Your task to perform on an android device: Open Youtube and go to the subscriptions tab Image 0: 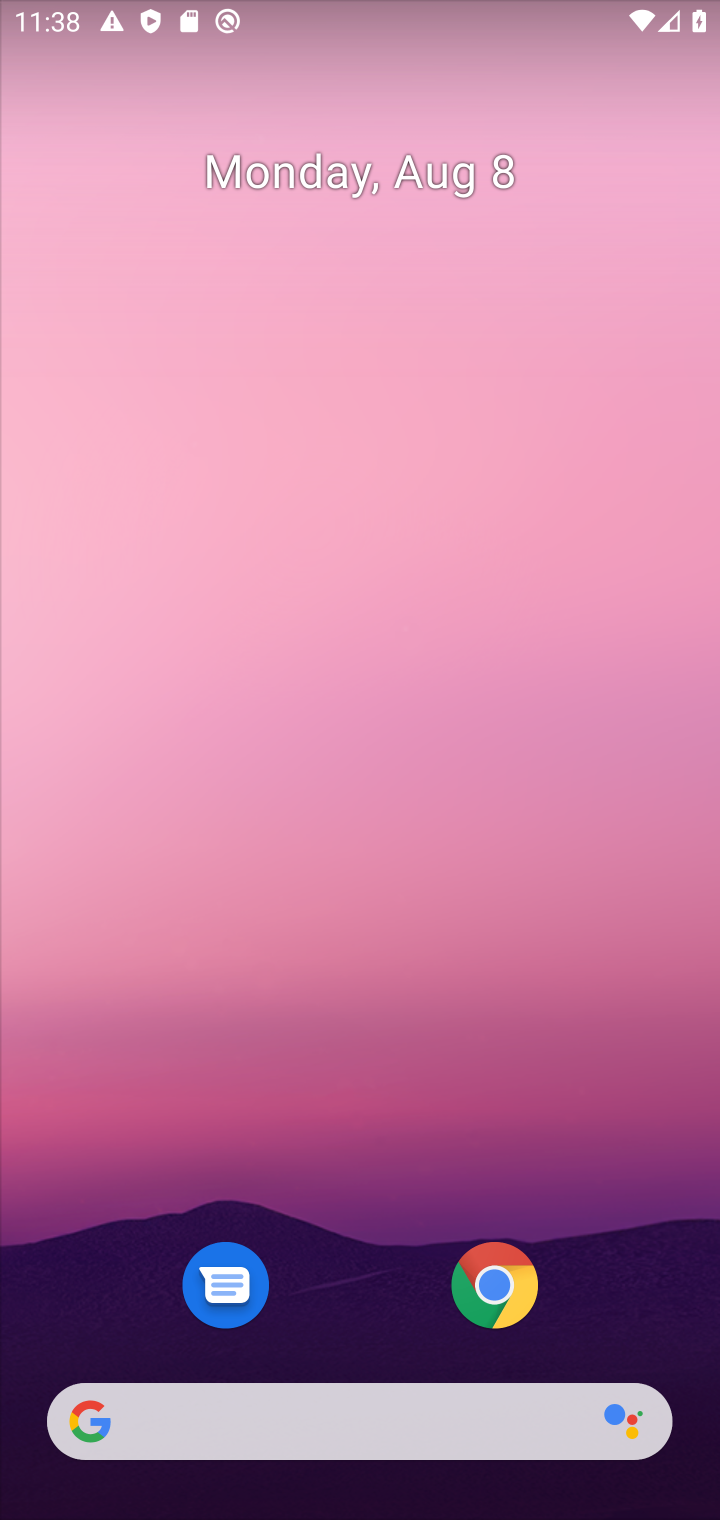
Step 0: click (433, 25)
Your task to perform on an android device: Open Youtube and go to the subscriptions tab Image 1: 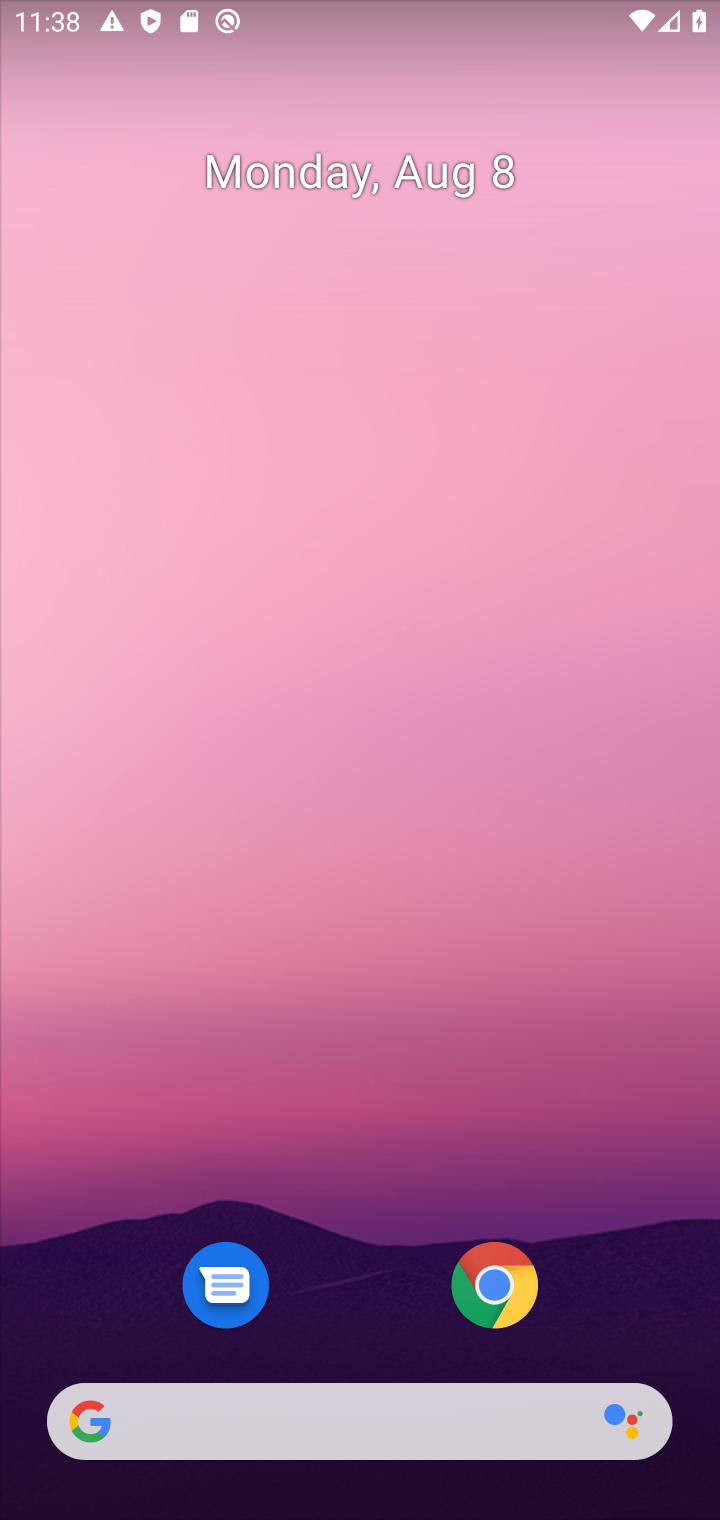
Step 1: drag from (399, 1107) to (456, 521)
Your task to perform on an android device: Open Youtube and go to the subscriptions tab Image 2: 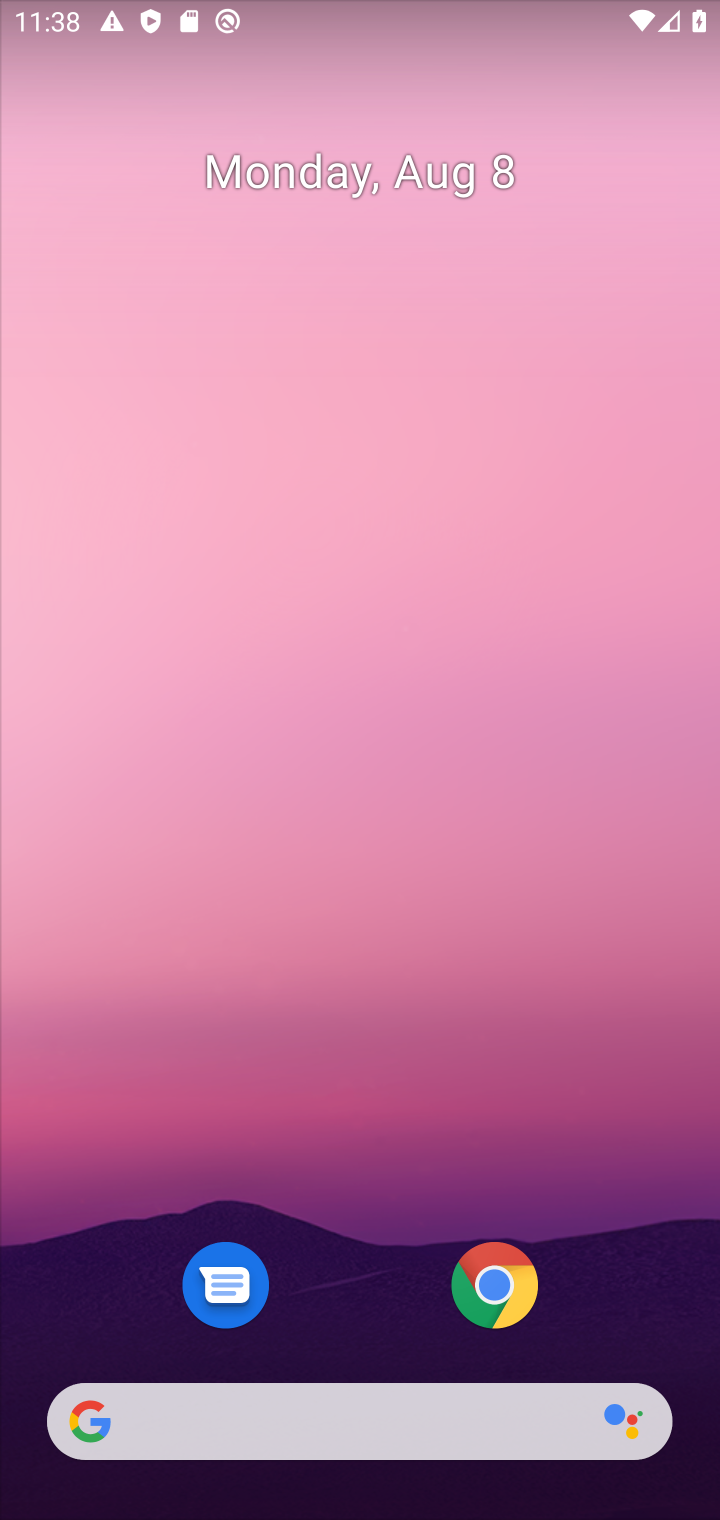
Step 2: drag from (337, 1329) to (429, 485)
Your task to perform on an android device: Open Youtube and go to the subscriptions tab Image 3: 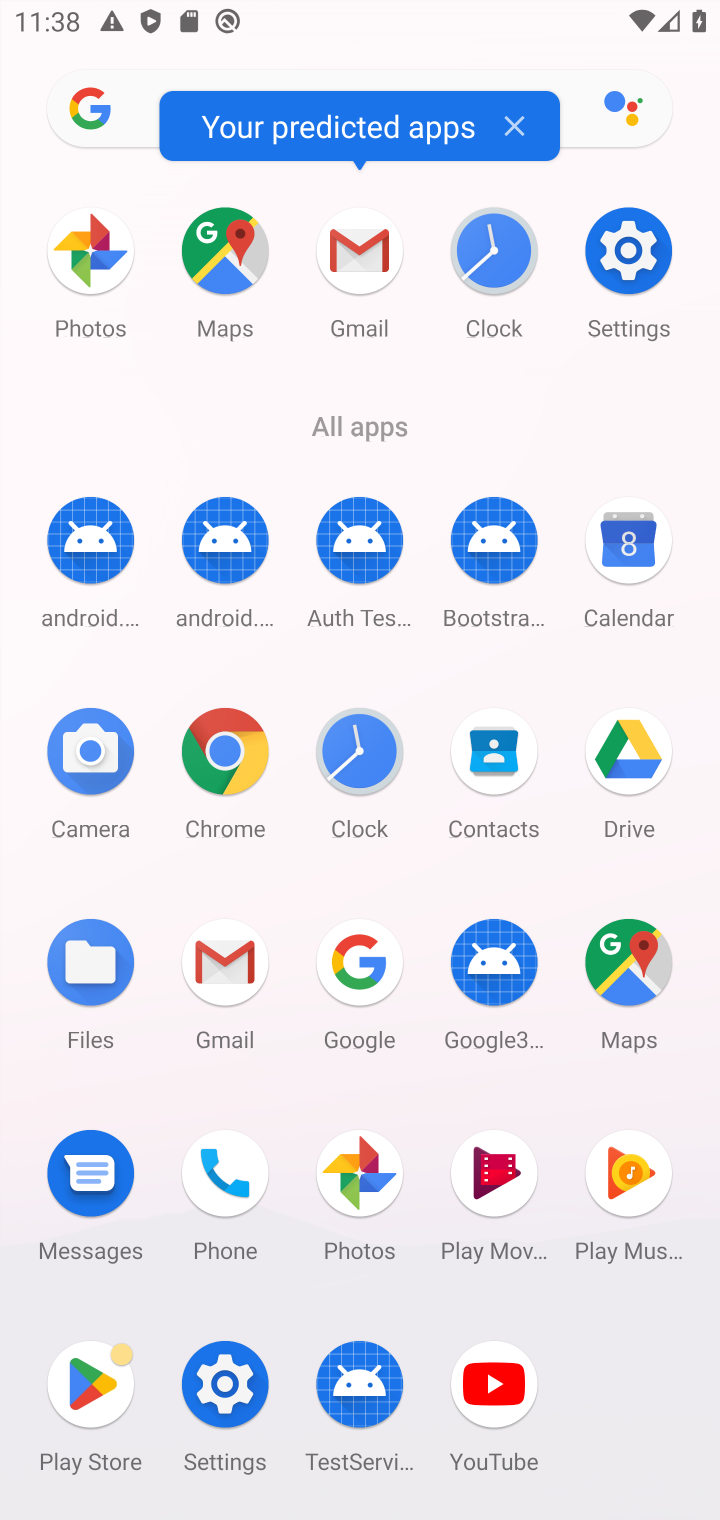
Step 3: click (453, 1382)
Your task to perform on an android device: Open Youtube and go to the subscriptions tab Image 4: 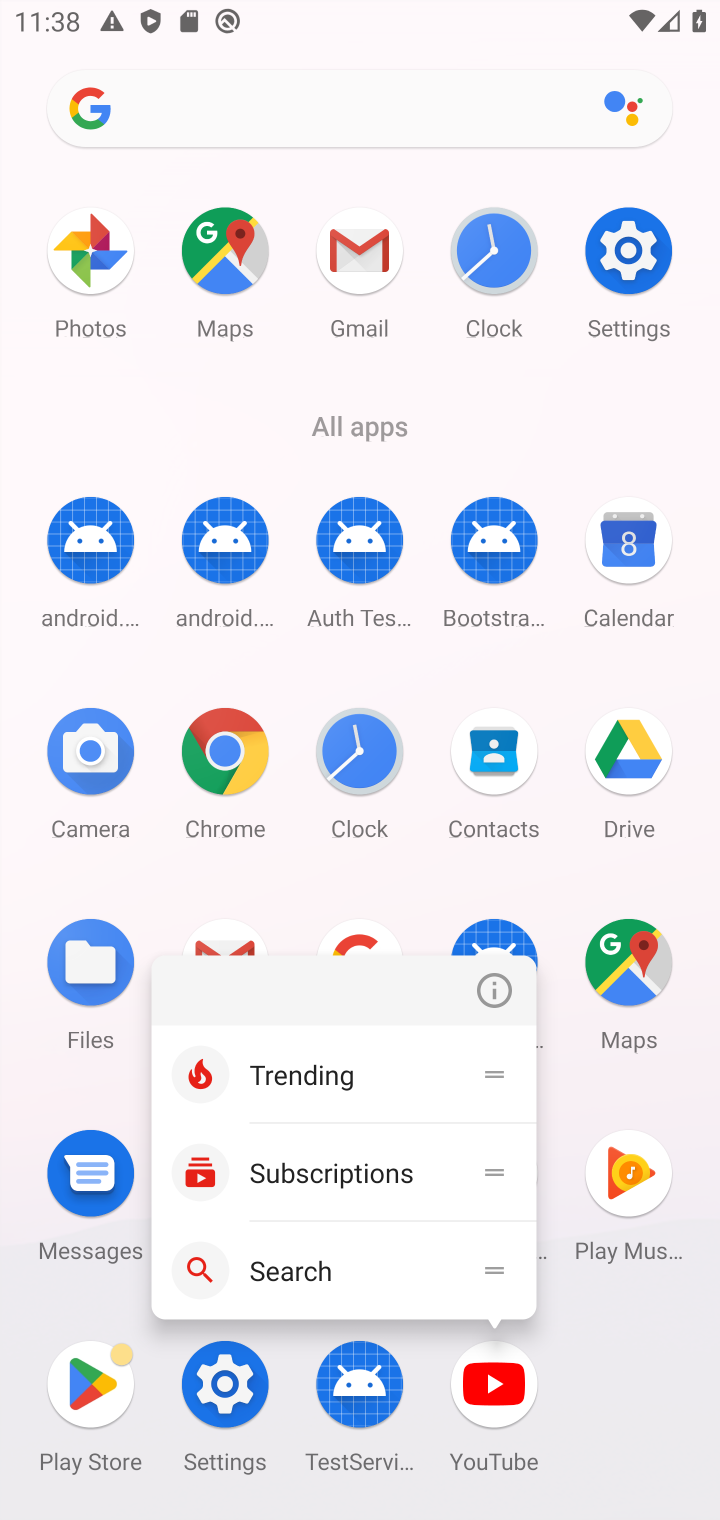
Step 4: click (515, 984)
Your task to perform on an android device: Open Youtube and go to the subscriptions tab Image 5: 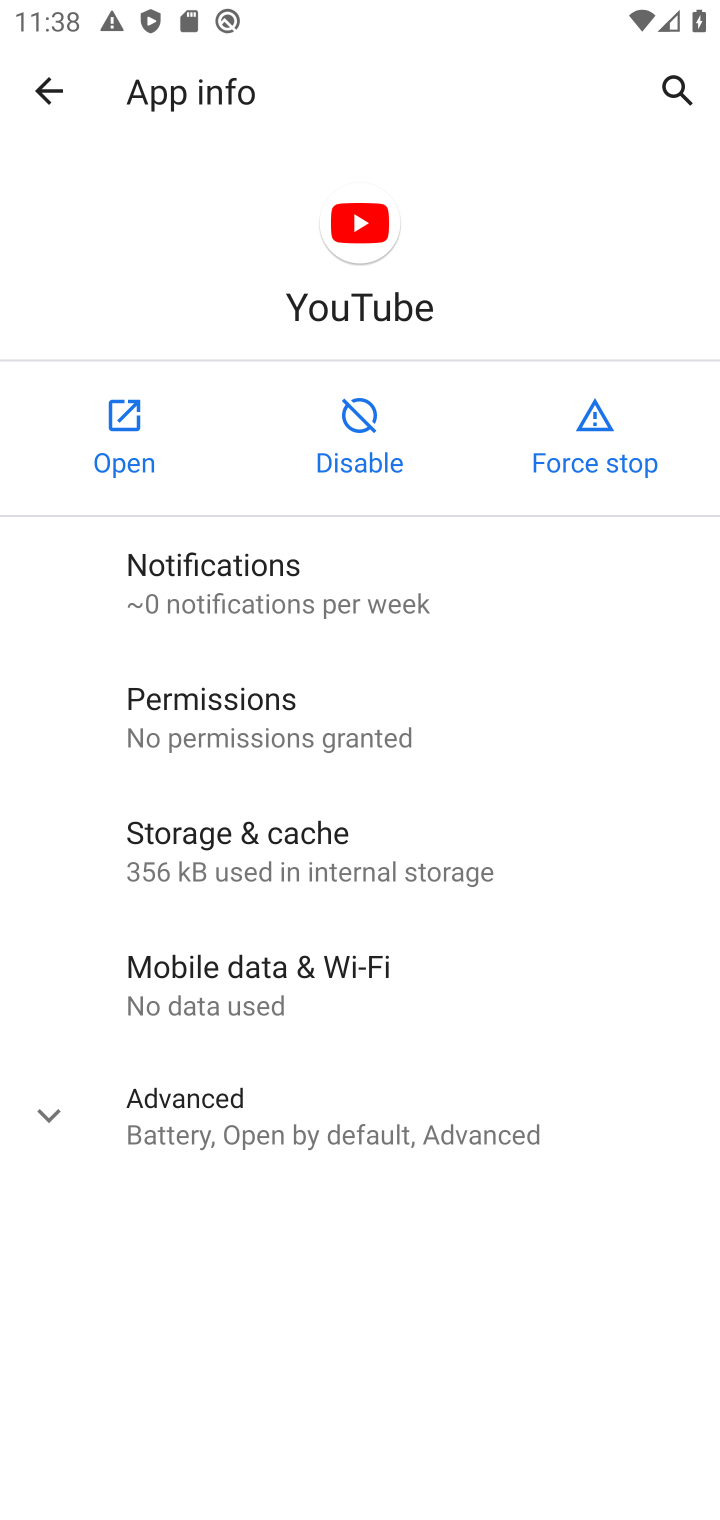
Step 5: click (98, 432)
Your task to perform on an android device: Open Youtube and go to the subscriptions tab Image 6: 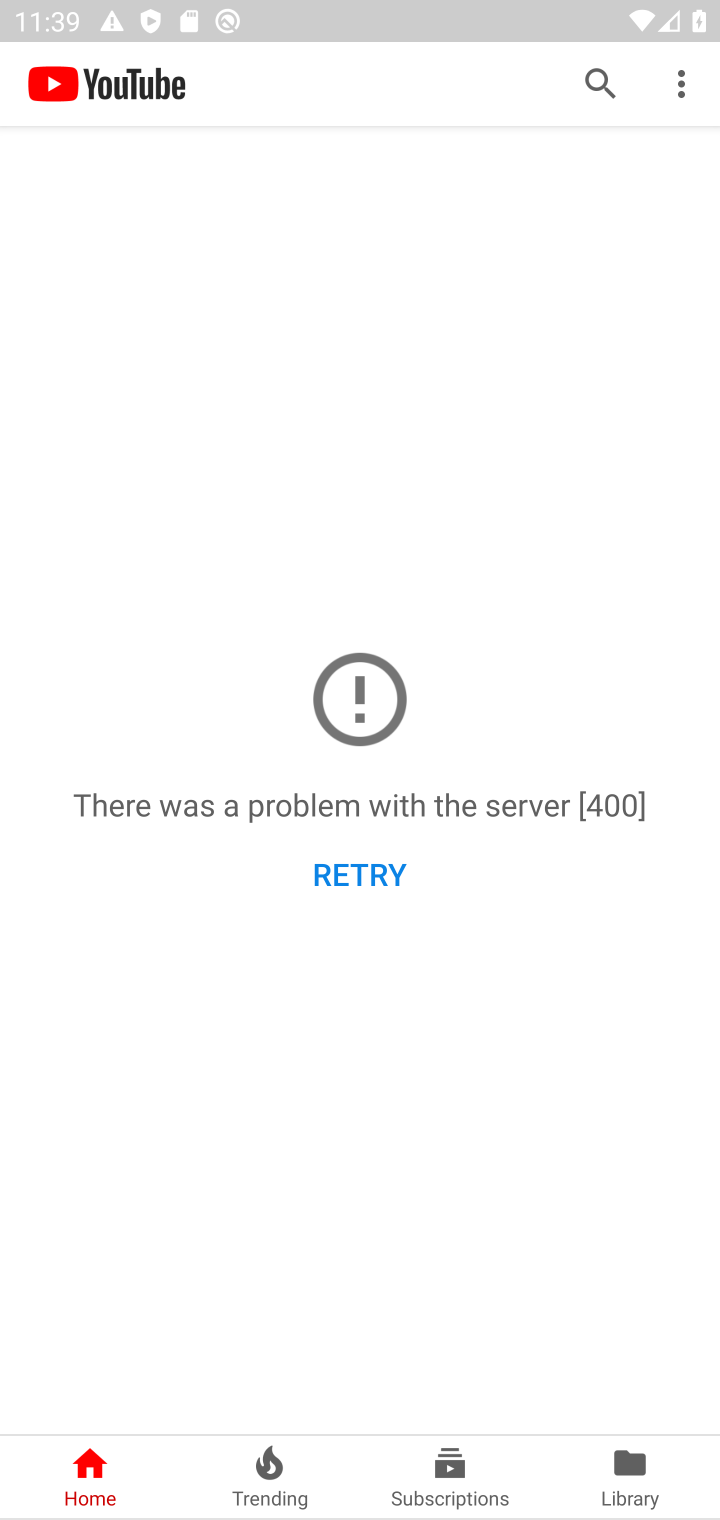
Step 6: click (434, 1483)
Your task to perform on an android device: Open Youtube and go to the subscriptions tab Image 7: 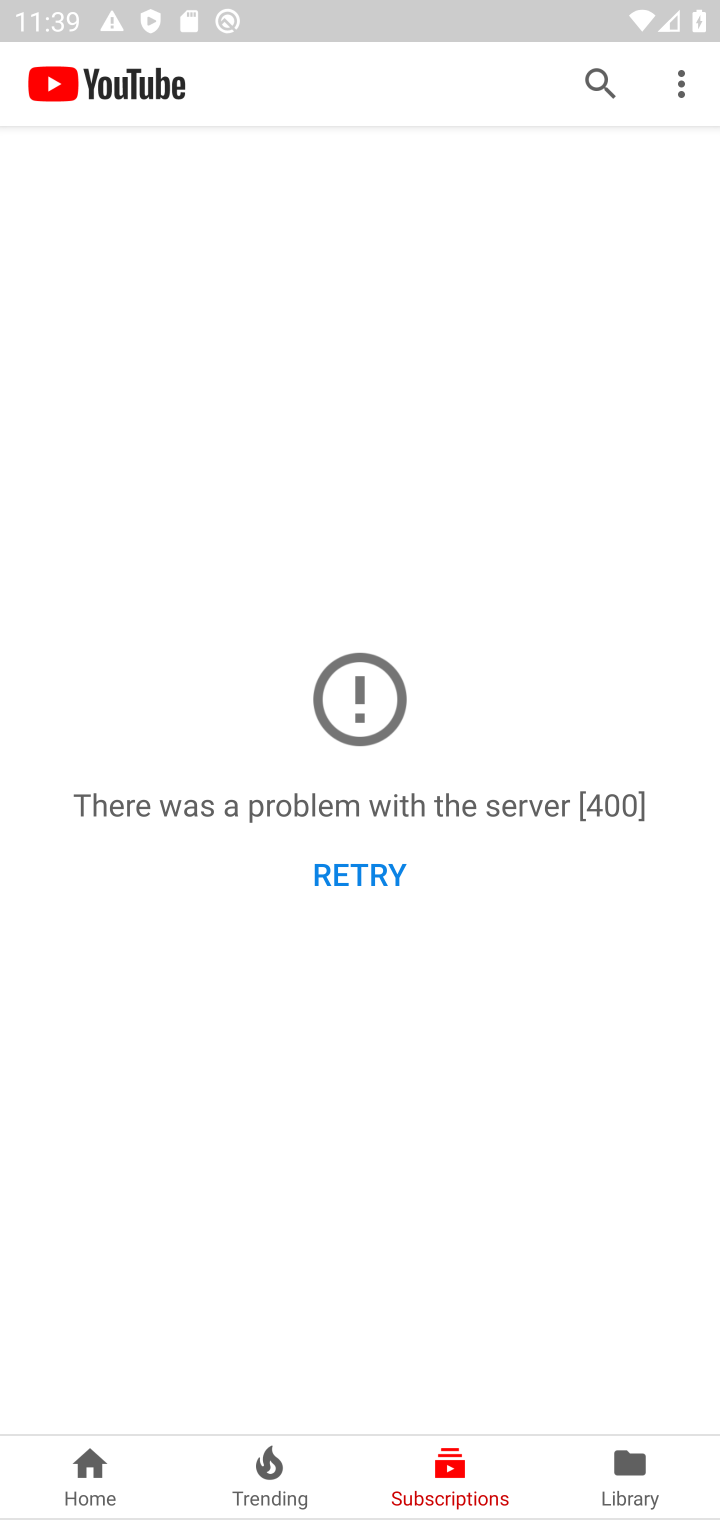
Step 7: task complete